Your task to perform on an android device: Go to calendar. Show me events next week Image 0: 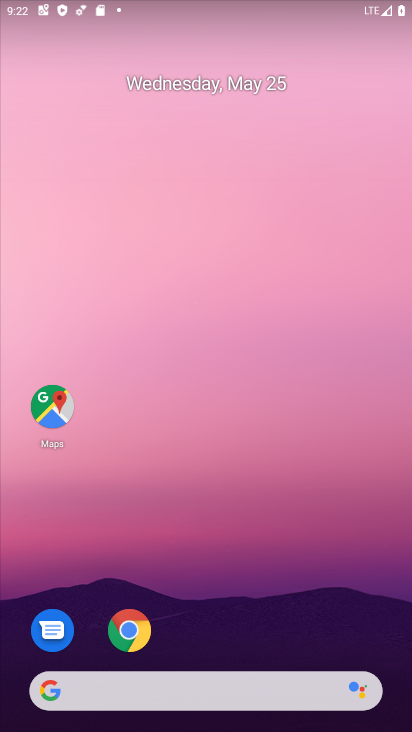
Step 0: drag from (242, 574) to (300, 136)
Your task to perform on an android device: Go to calendar. Show me events next week Image 1: 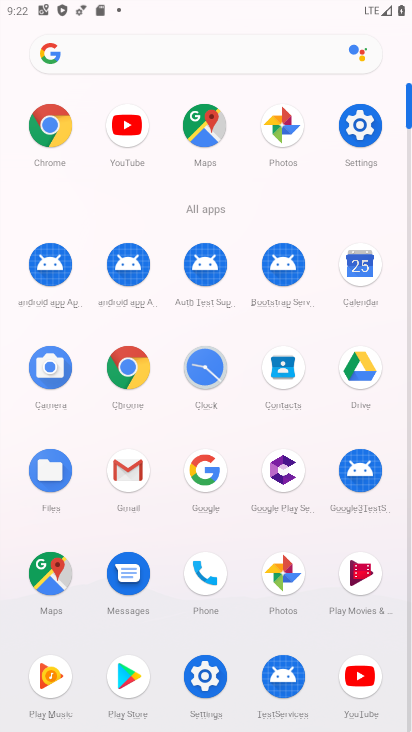
Step 1: click (346, 276)
Your task to perform on an android device: Go to calendar. Show me events next week Image 2: 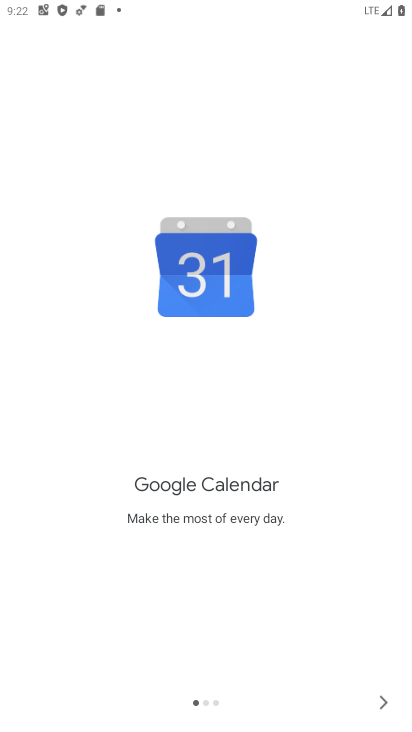
Step 2: click (375, 705)
Your task to perform on an android device: Go to calendar. Show me events next week Image 3: 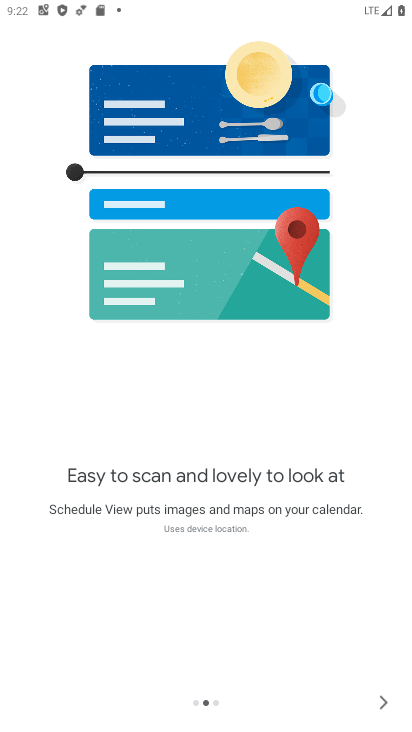
Step 3: click (372, 696)
Your task to perform on an android device: Go to calendar. Show me events next week Image 4: 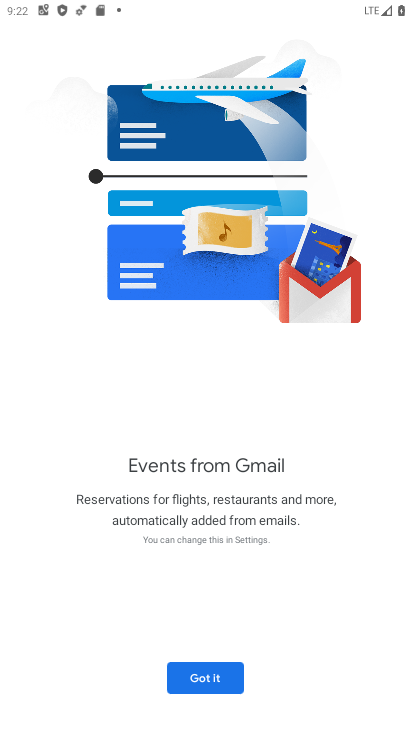
Step 4: click (196, 685)
Your task to perform on an android device: Go to calendar. Show me events next week Image 5: 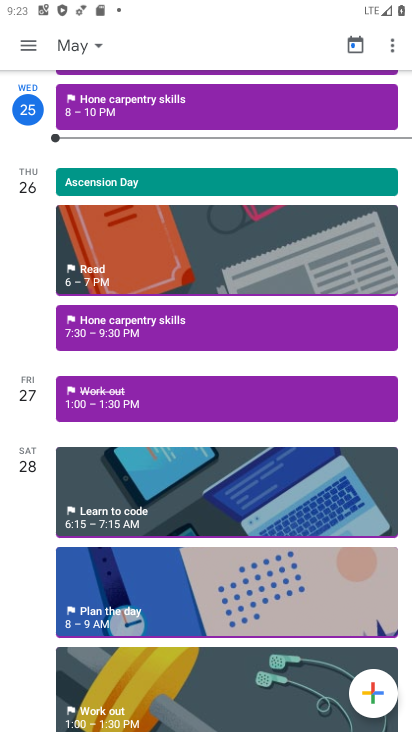
Step 5: drag from (196, 626) to (322, 0)
Your task to perform on an android device: Go to calendar. Show me events next week Image 6: 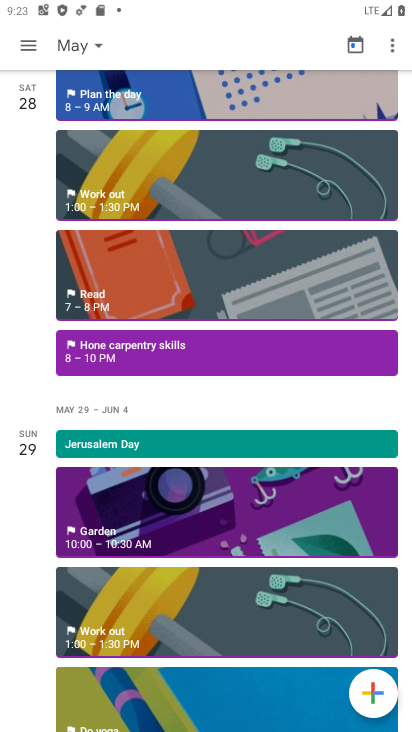
Step 6: drag from (193, 605) to (286, 6)
Your task to perform on an android device: Go to calendar. Show me events next week Image 7: 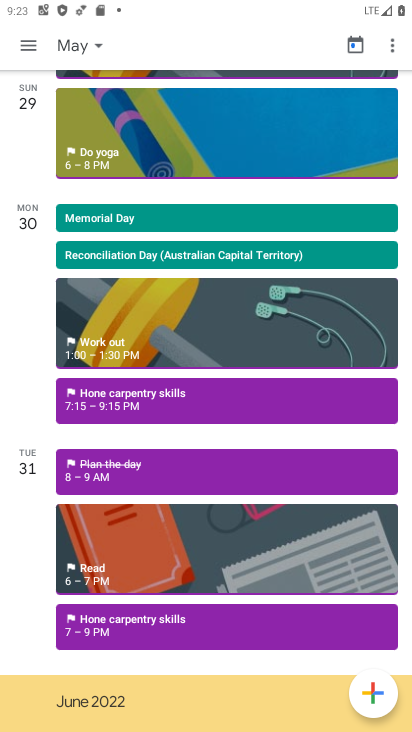
Step 7: click (97, 249)
Your task to perform on an android device: Go to calendar. Show me events next week Image 8: 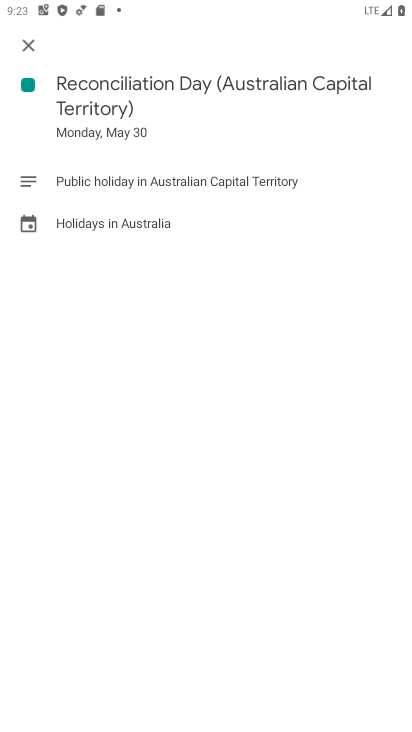
Step 8: task complete